Your task to perform on an android device: turn off location Image 0: 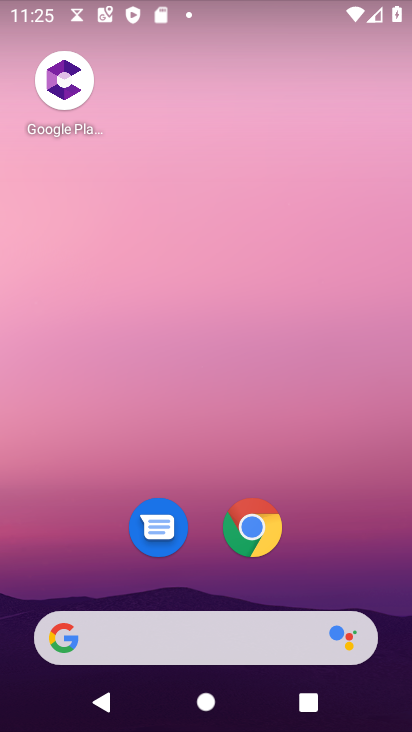
Step 0: drag from (224, 582) to (232, 72)
Your task to perform on an android device: turn off location Image 1: 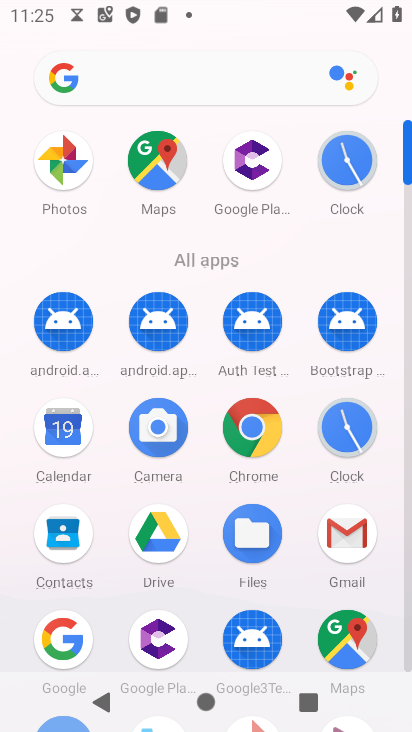
Step 1: drag from (193, 484) to (212, 180)
Your task to perform on an android device: turn off location Image 2: 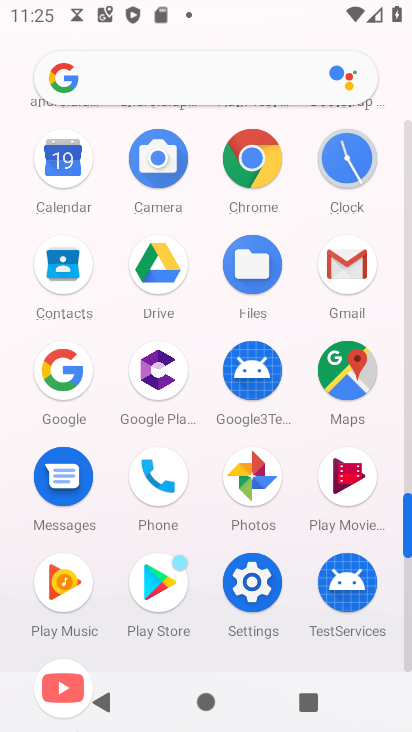
Step 2: click (253, 598)
Your task to perform on an android device: turn off location Image 3: 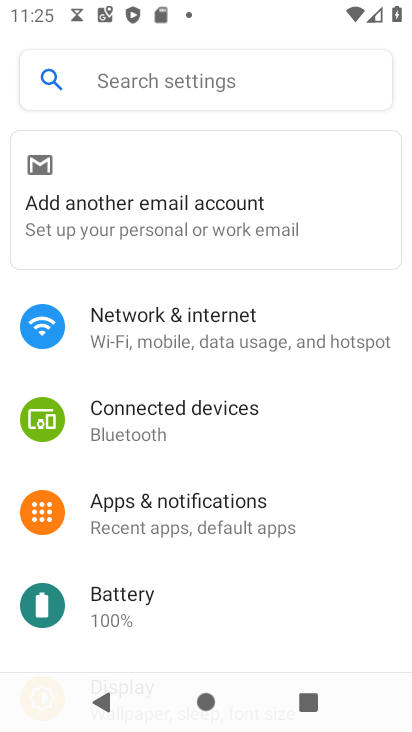
Step 3: drag from (219, 442) to (243, 151)
Your task to perform on an android device: turn off location Image 4: 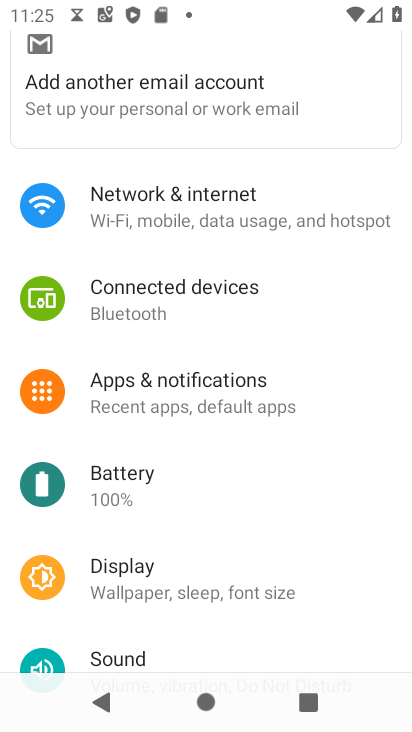
Step 4: drag from (171, 518) to (196, 280)
Your task to perform on an android device: turn off location Image 5: 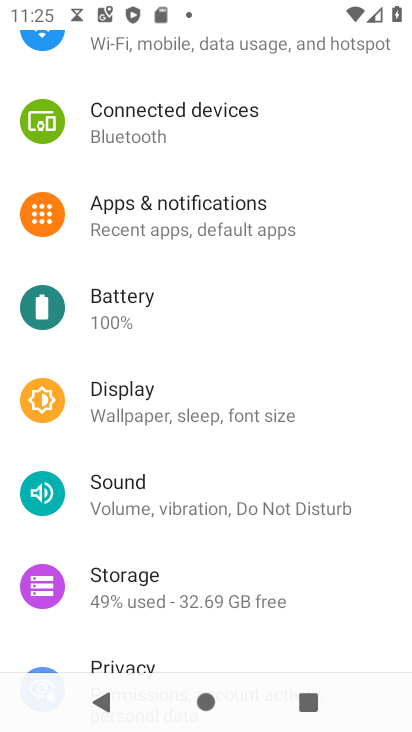
Step 5: drag from (152, 558) to (190, 315)
Your task to perform on an android device: turn off location Image 6: 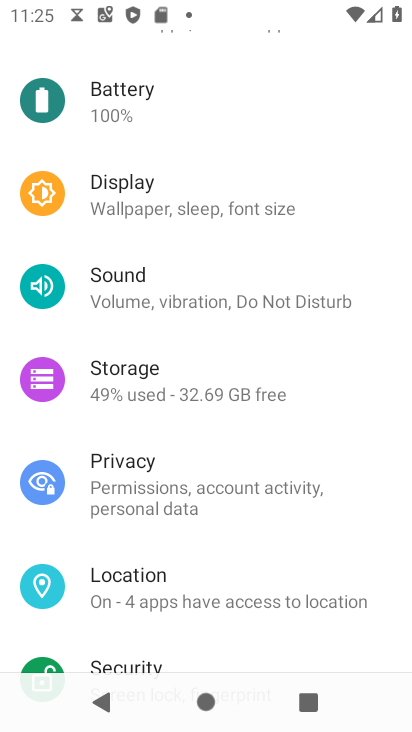
Step 6: click (149, 566)
Your task to perform on an android device: turn off location Image 7: 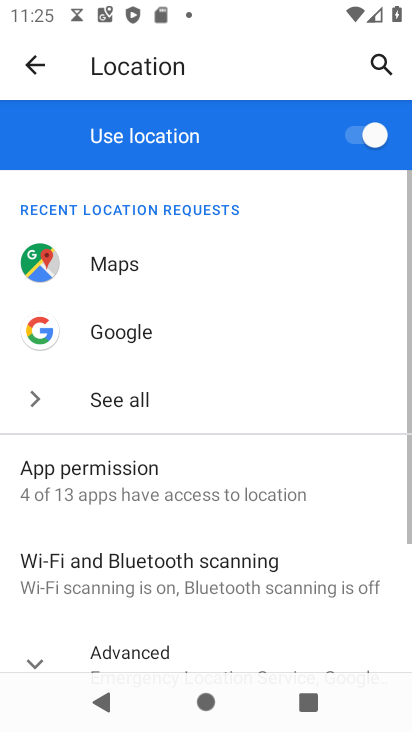
Step 7: click (343, 131)
Your task to perform on an android device: turn off location Image 8: 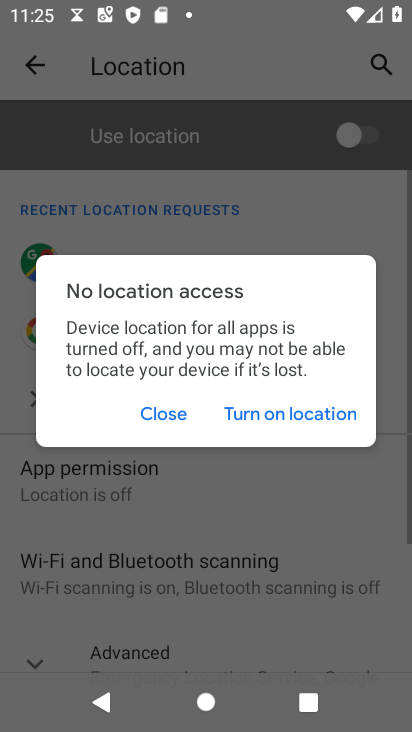
Step 8: task complete